Your task to perform on an android device: open the mobile data screen to see how much data has been used Image 0: 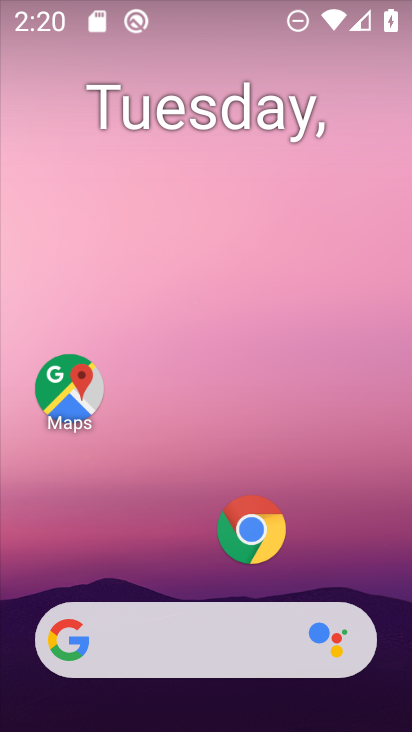
Step 0: drag from (171, 688) to (279, 147)
Your task to perform on an android device: open the mobile data screen to see how much data has been used Image 1: 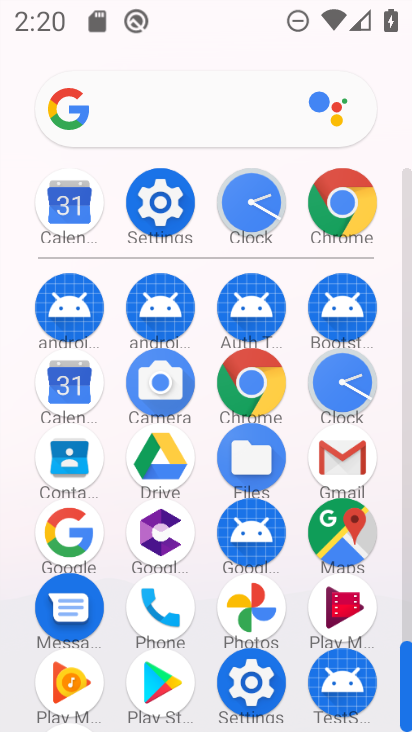
Step 1: click (254, 661)
Your task to perform on an android device: open the mobile data screen to see how much data has been used Image 2: 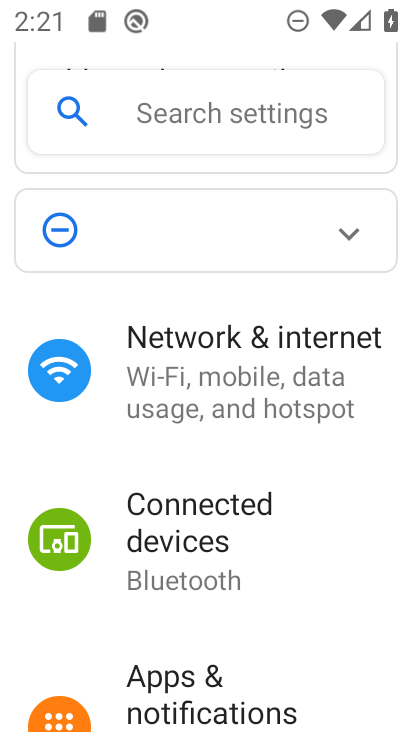
Step 2: click (196, 100)
Your task to perform on an android device: open the mobile data screen to see how much data has been used Image 3: 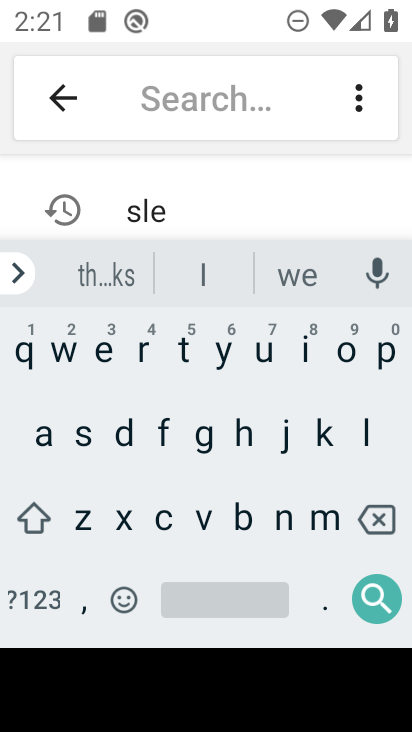
Step 3: press back button
Your task to perform on an android device: open the mobile data screen to see how much data has been used Image 4: 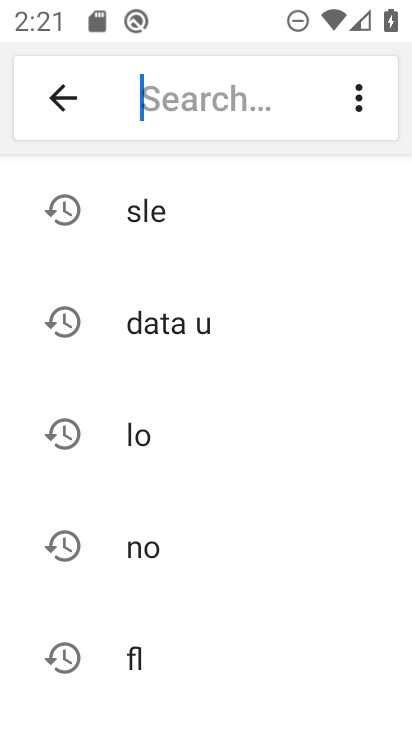
Step 4: click (165, 325)
Your task to perform on an android device: open the mobile data screen to see how much data has been used Image 5: 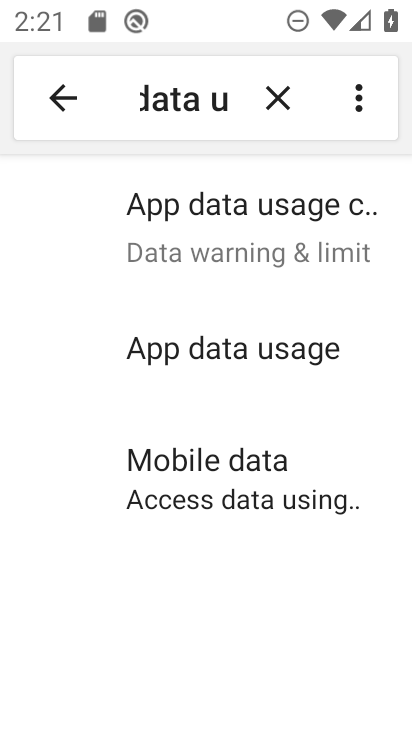
Step 5: click (183, 374)
Your task to perform on an android device: open the mobile data screen to see how much data has been used Image 6: 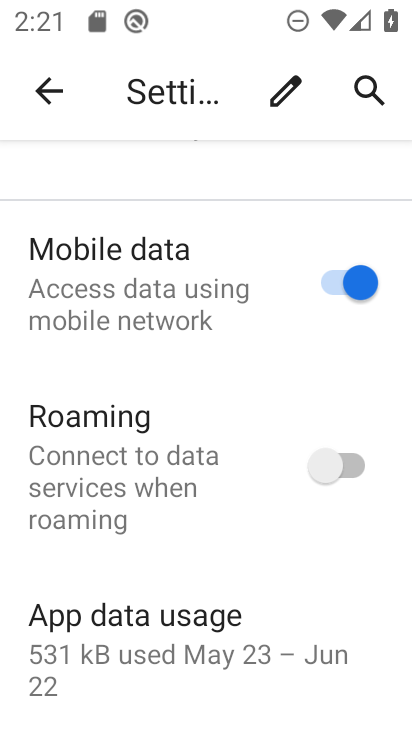
Step 6: task complete